Your task to perform on an android device: Open settings on Google Maps Image 0: 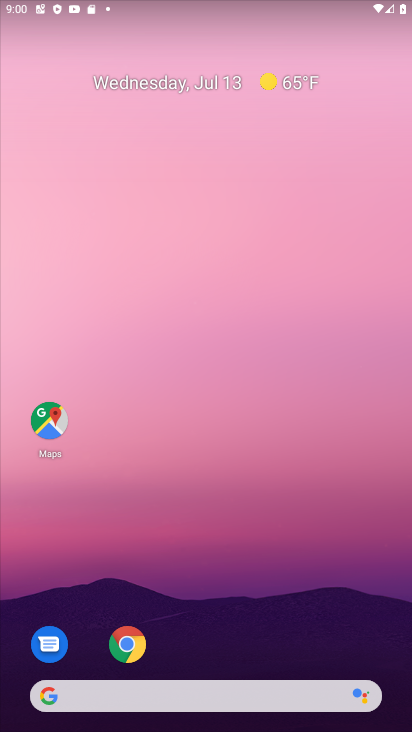
Step 0: drag from (341, 688) to (357, 148)
Your task to perform on an android device: Open settings on Google Maps Image 1: 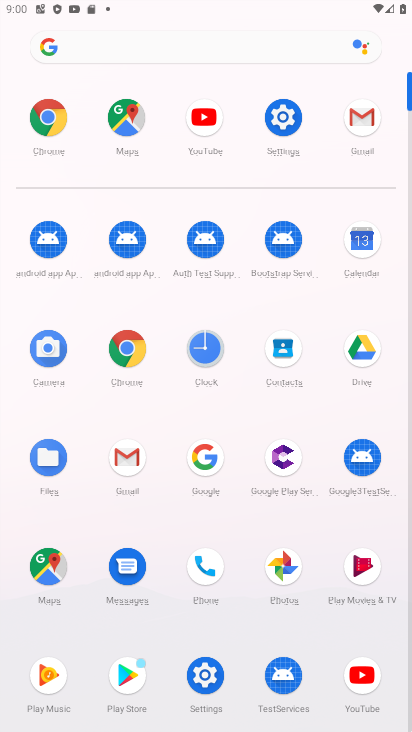
Step 1: click (53, 577)
Your task to perform on an android device: Open settings on Google Maps Image 2: 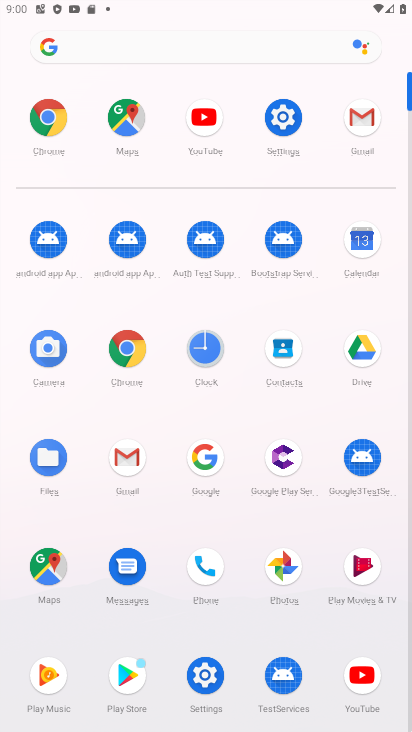
Step 2: click (36, 573)
Your task to perform on an android device: Open settings on Google Maps Image 3: 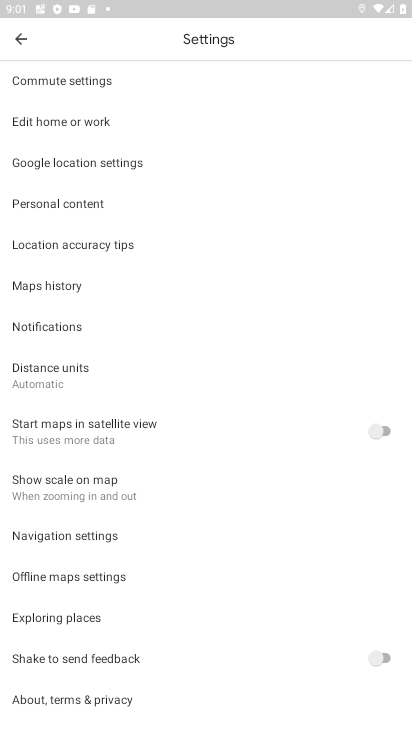
Step 3: click (17, 36)
Your task to perform on an android device: Open settings on Google Maps Image 4: 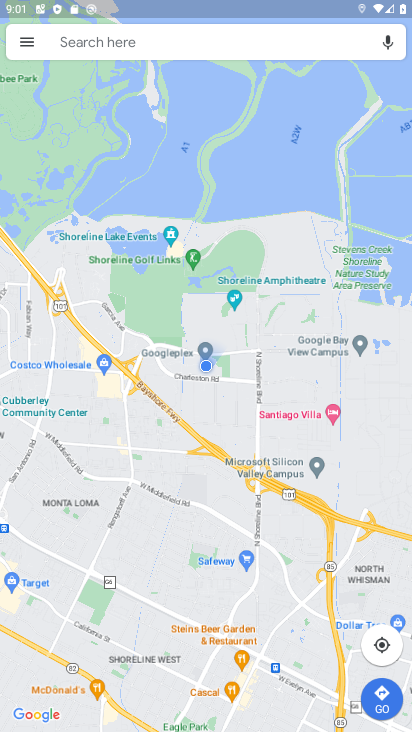
Step 4: click (21, 42)
Your task to perform on an android device: Open settings on Google Maps Image 5: 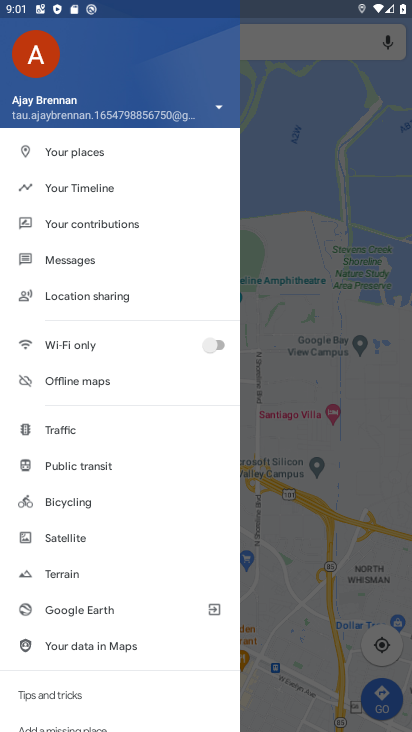
Step 5: drag from (98, 648) to (189, 239)
Your task to perform on an android device: Open settings on Google Maps Image 6: 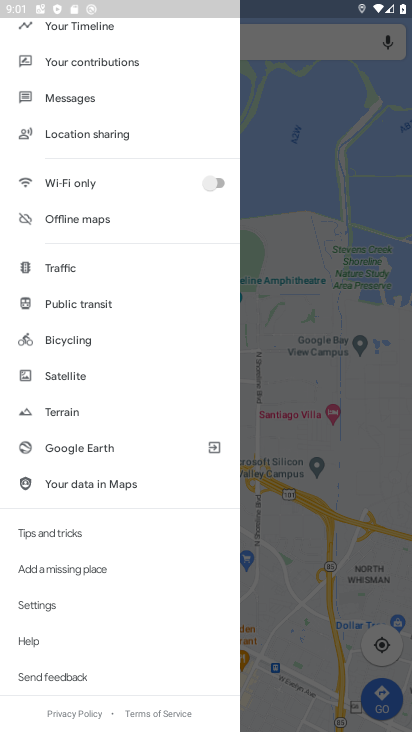
Step 6: click (34, 602)
Your task to perform on an android device: Open settings on Google Maps Image 7: 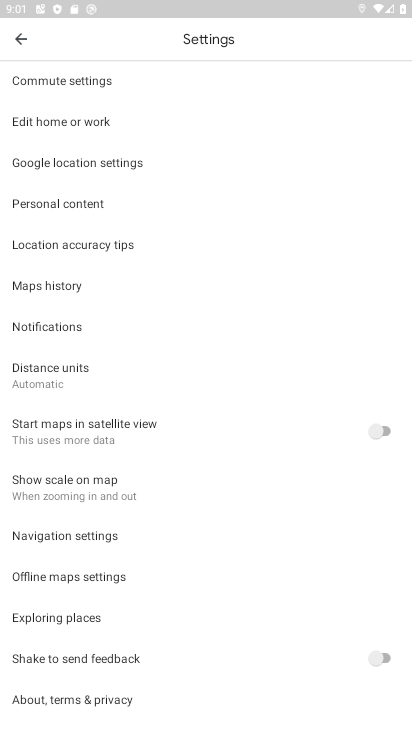
Step 7: task complete